Your task to perform on an android device: Open Maps and search for coffee Image 0: 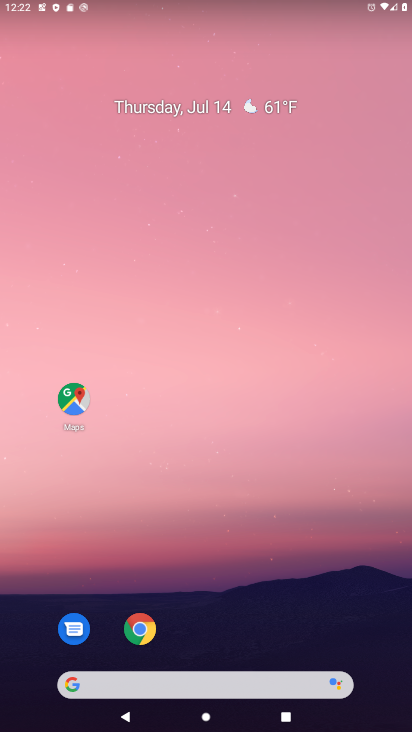
Step 0: click (75, 394)
Your task to perform on an android device: Open Maps and search for coffee Image 1: 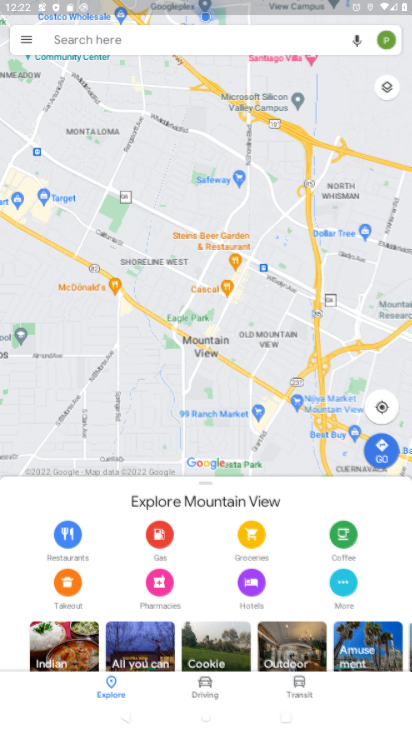
Step 1: click (81, 36)
Your task to perform on an android device: Open Maps and search for coffee Image 2: 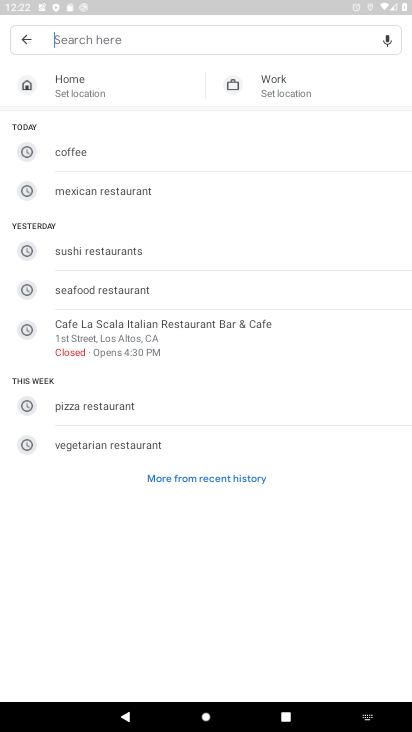
Step 2: type "coffee"
Your task to perform on an android device: Open Maps and search for coffee Image 3: 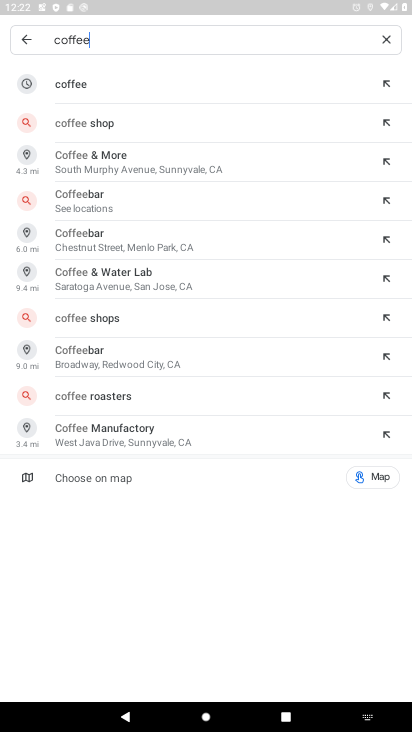
Step 3: click (65, 82)
Your task to perform on an android device: Open Maps and search for coffee Image 4: 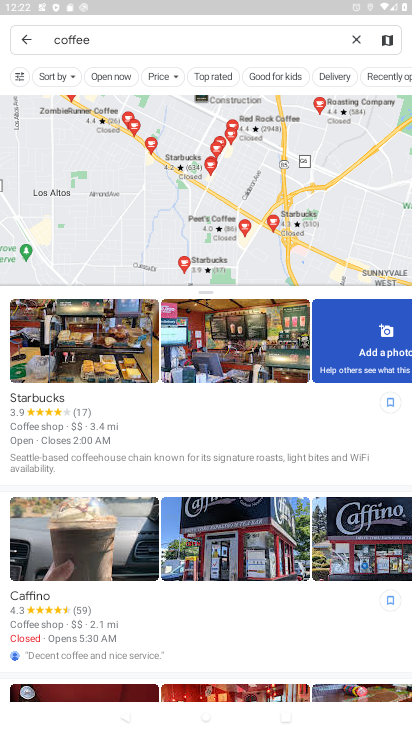
Step 4: task complete